Your task to perform on an android device: Go to Google maps Image 0: 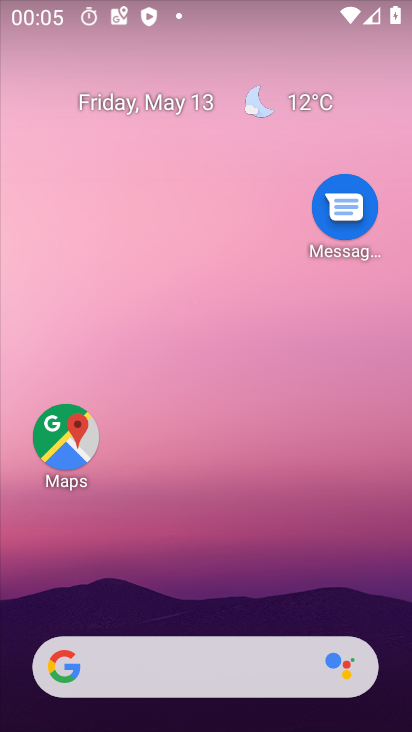
Step 0: click (73, 425)
Your task to perform on an android device: Go to Google maps Image 1: 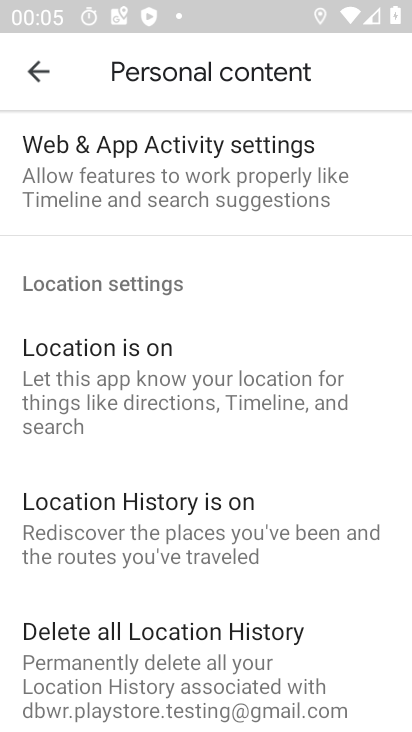
Step 1: task complete